Your task to perform on an android device: uninstall "HBO Max: Stream TV & Movies" Image 0: 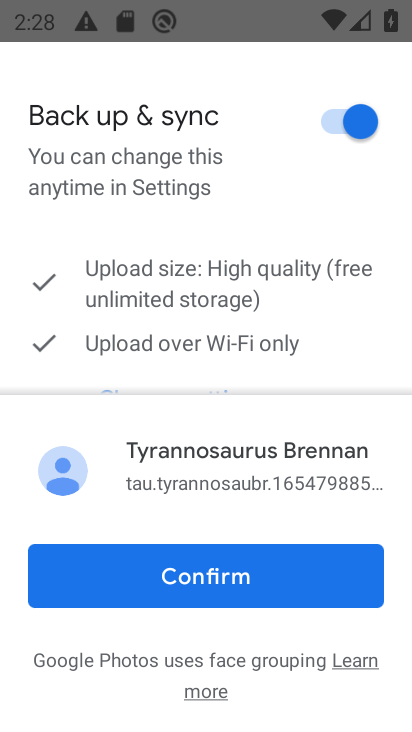
Step 0: press home button
Your task to perform on an android device: uninstall "HBO Max: Stream TV & Movies" Image 1: 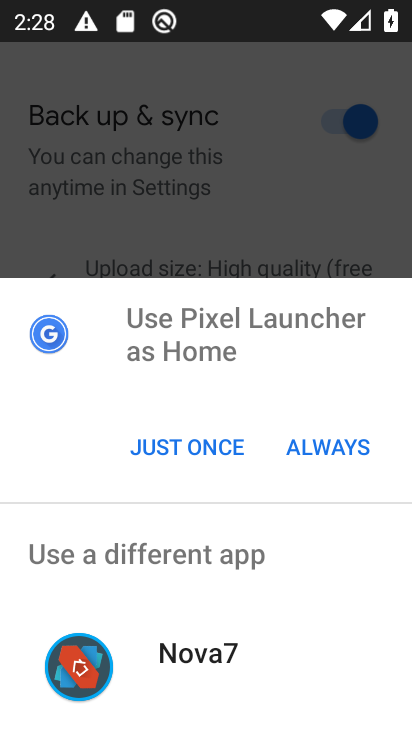
Step 1: click (188, 443)
Your task to perform on an android device: uninstall "HBO Max: Stream TV & Movies" Image 2: 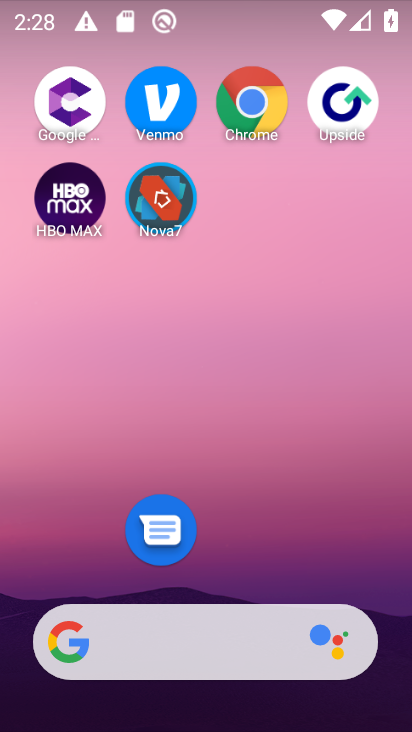
Step 2: drag from (309, 556) to (169, 0)
Your task to perform on an android device: uninstall "HBO Max: Stream TV & Movies" Image 3: 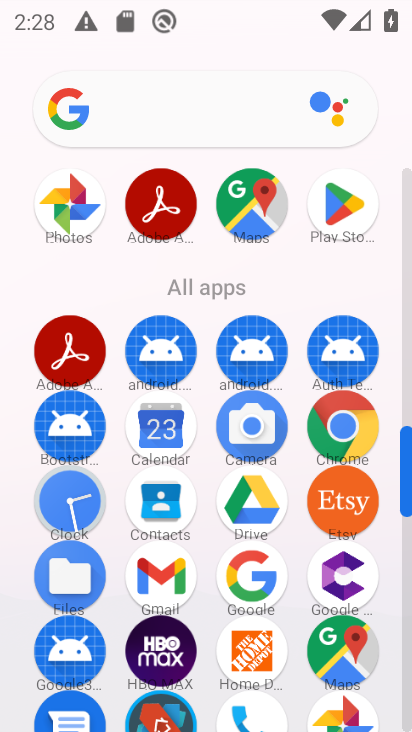
Step 3: click (346, 225)
Your task to perform on an android device: uninstall "HBO Max: Stream TV & Movies" Image 4: 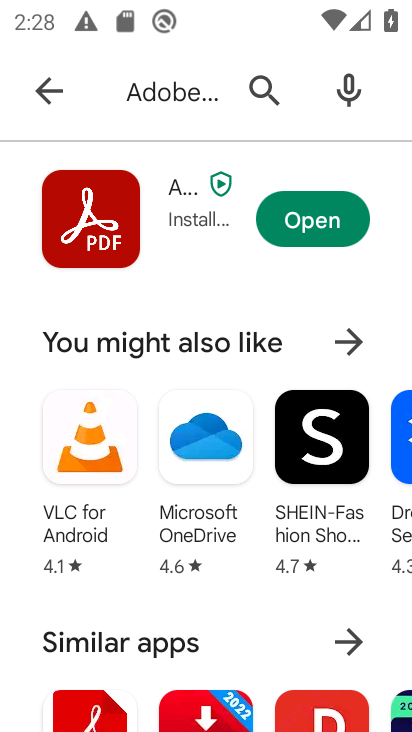
Step 4: press back button
Your task to perform on an android device: uninstall "HBO Max: Stream TV & Movies" Image 5: 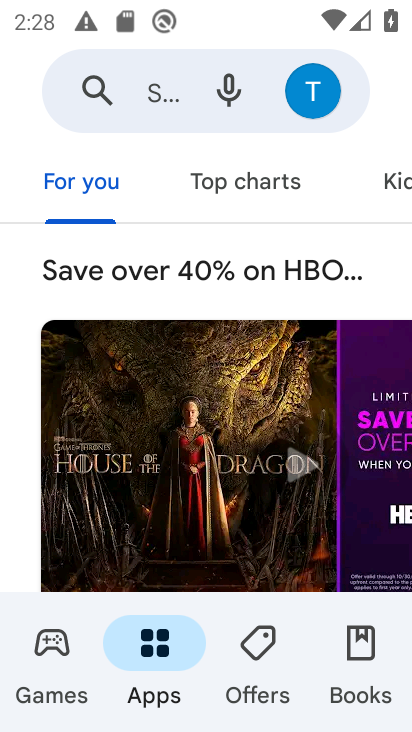
Step 5: click (158, 96)
Your task to perform on an android device: uninstall "HBO Max: Stream TV & Movies" Image 6: 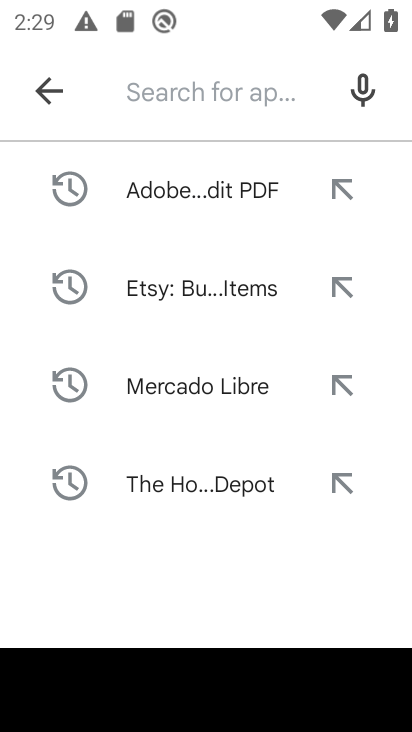
Step 6: type "HBO Max: Stream TV & Movies"
Your task to perform on an android device: uninstall "HBO Max: Stream TV & Movies" Image 7: 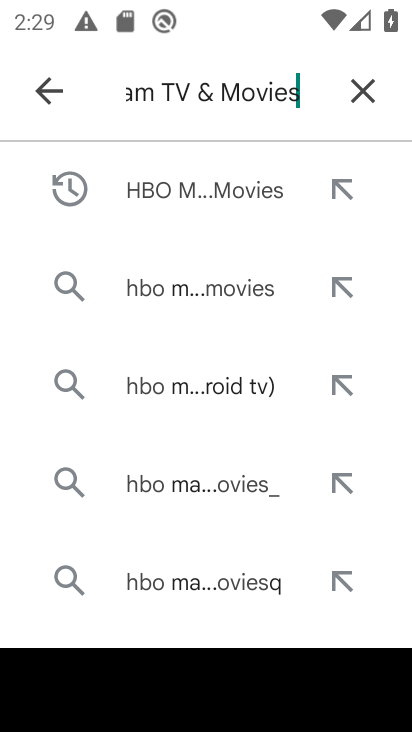
Step 7: press enter
Your task to perform on an android device: uninstall "HBO Max: Stream TV & Movies" Image 8: 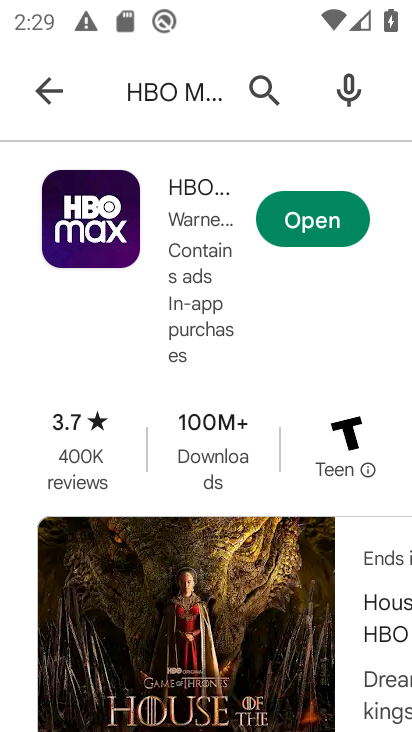
Step 8: click (106, 217)
Your task to perform on an android device: uninstall "HBO Max: Stream TV & Movies" Image 9: 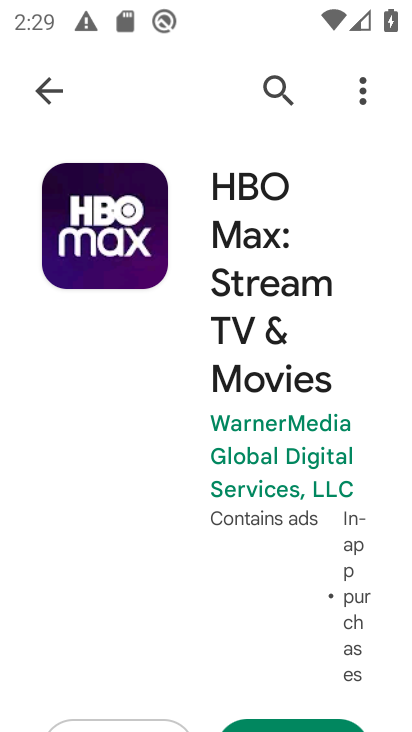
Step 9: drag from (290, 551) to (247, 182)
Your task to perform on an android device: uninstall "HBO Max: Stream TV & Movies" Image 10: 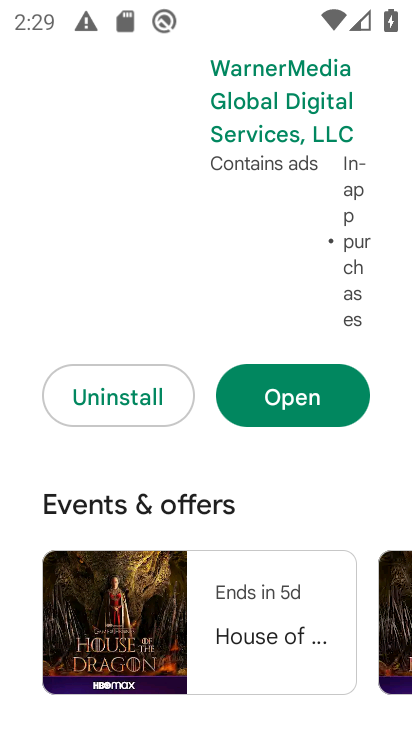
Step 10: click (152, 390)
Your task to perform on an android device: uninstall "HBO Max: Stream TV & Movies" Image 11: 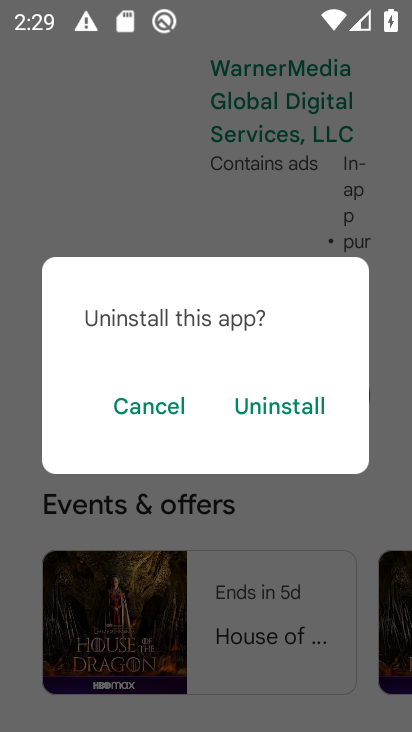
Step 11: click (300, 418)
Your task to perform on an android device: uninstall "HBO Max: Stream TV & Movies" Image 12: 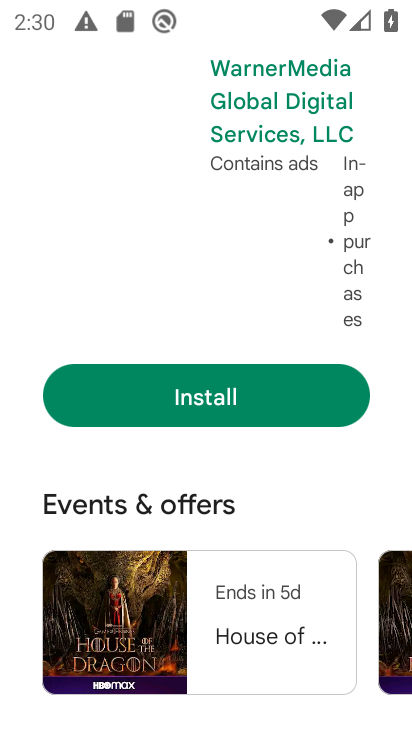
Step 12: task complete